Your task to perform on an android device: Search for pizza restaurants on Maps Image 0: 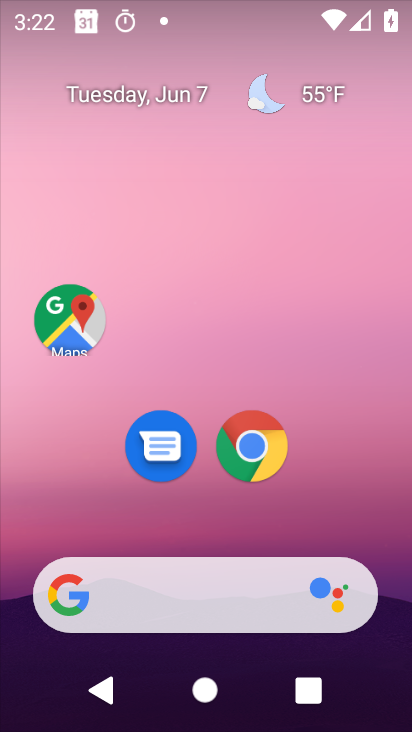
Step 0: click (69, 327)
Your task to perform on an android device: Search for pizza restaurants on Maps Image 1: 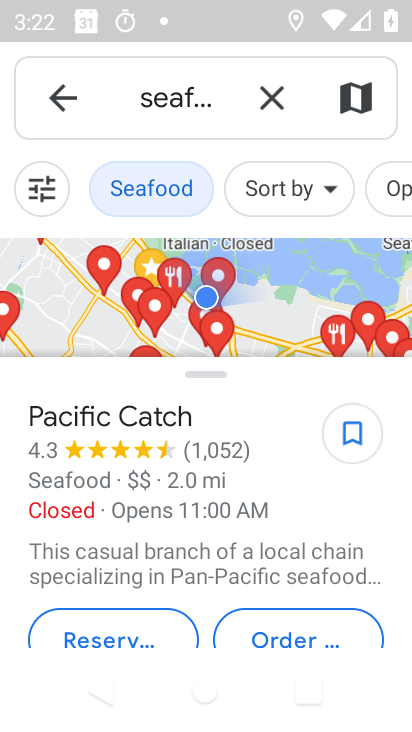
Step 1: click (260, 85)
Your task to perform on an android device: Search for pizza restaurants on Maps Image 2: 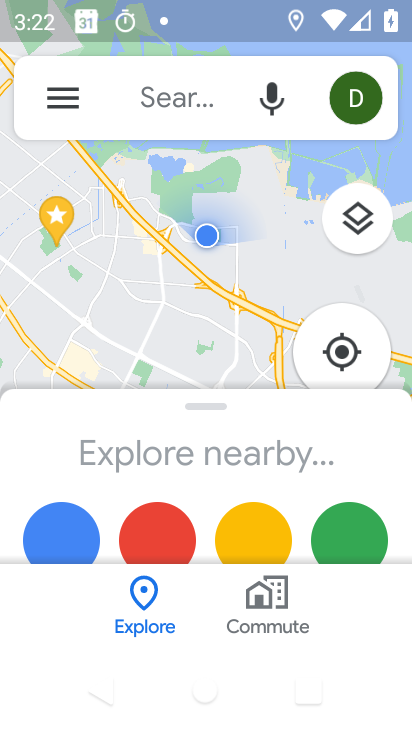
Step 2: click (154, 87)
Your task to perform on an android device: Search for pizza restaurants on Maps Image 3: 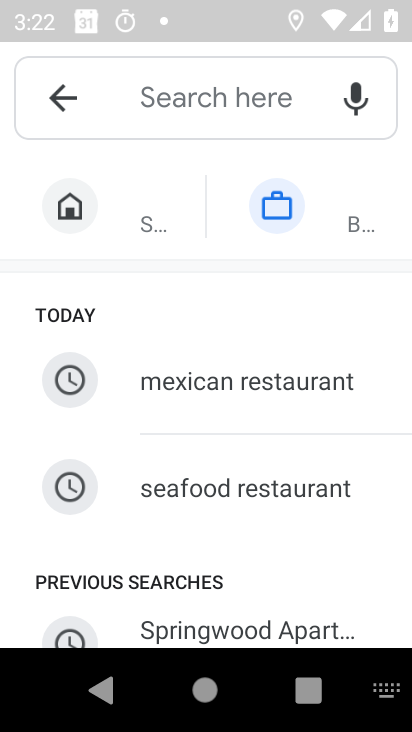
Step 3: type "pizza restaurants"
Your task to perform on an android device: Search for pizza restaurants on Maps Image 4: 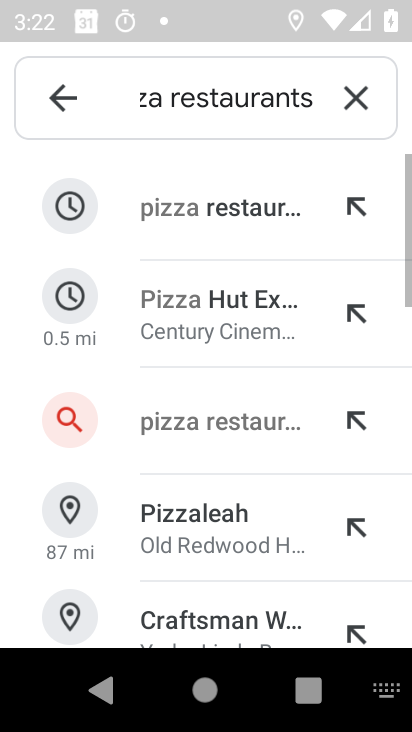
Step 4: click (231, 224)
Your task to perform on an android device: Search for pizza restaurants on Maps Image 5: 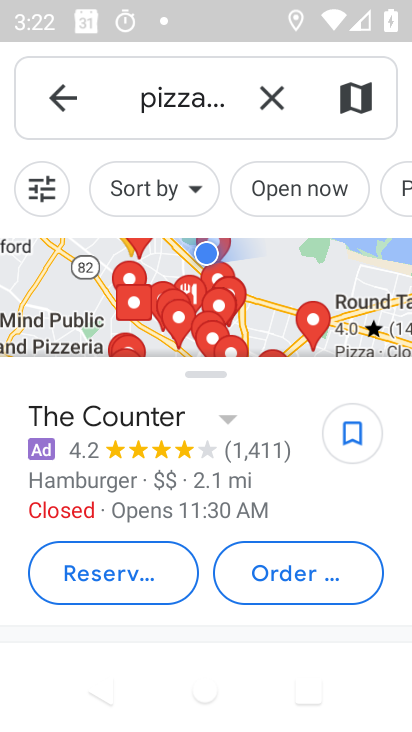
Step 5: task complete